Your task to perform on an android device: all mails in gmail Image 0: 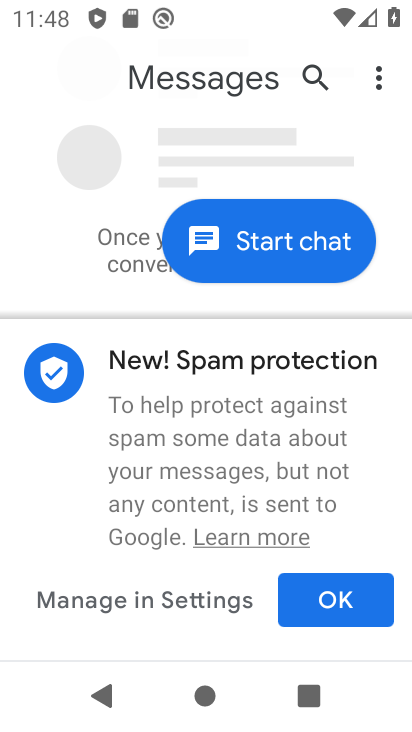
Step 0: press home button
Your task to perform on an android device: all mails in gmail Image 1: 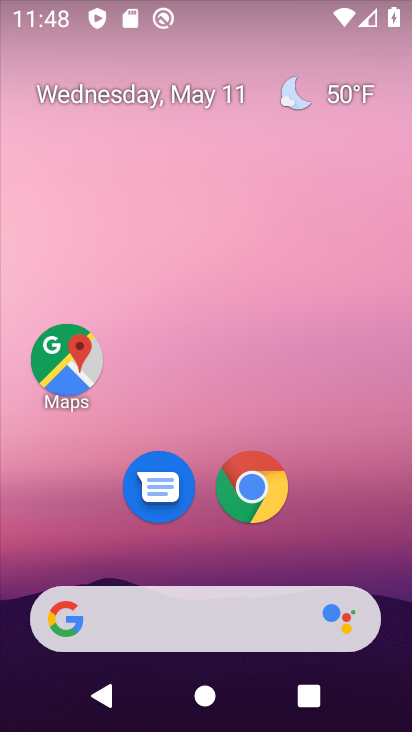
Step 1: drag from (218, 587) to (374, 125)
Your task to perform on an android device: all mails in gmail Image 2: 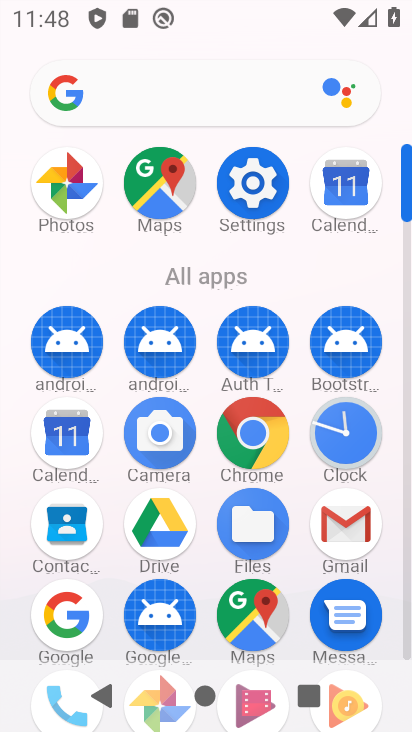
Step 2: click (335, 526)
Your task to perform on an android device: all mails in gmail Image 3: 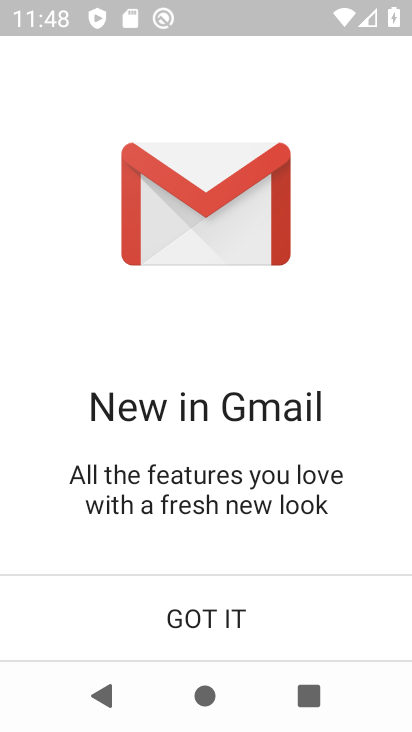
Step 3: click (245, 623)
Your task to perform on an android device: all mails in gmail Image 4: 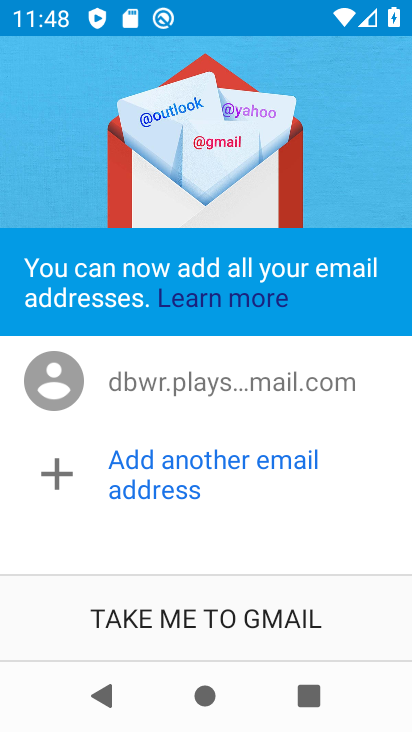
Step 4: click (245, 623)
Your task to perform on an android device: all mails in gmail Image 5: 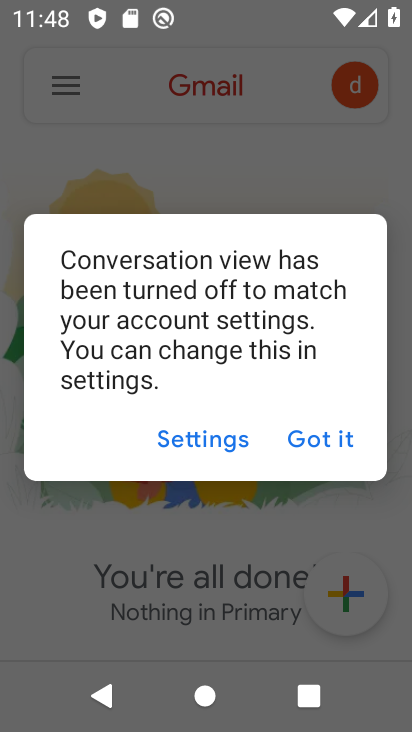
Step 5: click (304, 437)
Your task to perform on an android device: all mails in gmail Image 6: 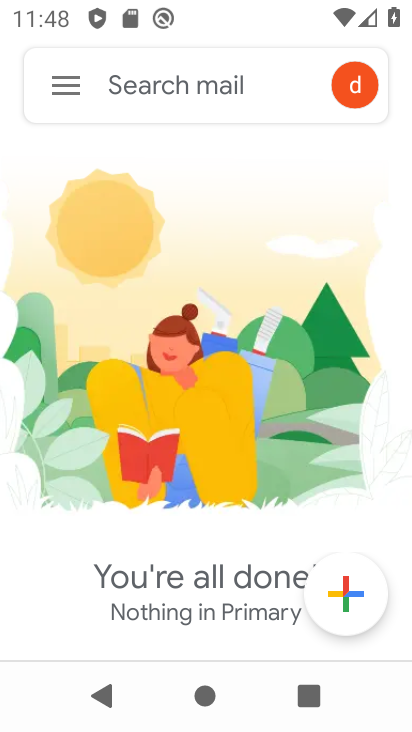
Step 6: click (73, 62)
Your task to perform on an android device: all mails in gmail Image 7: 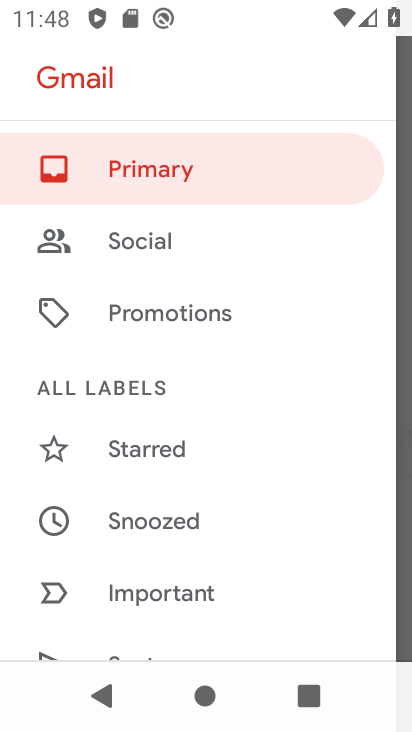
Step 7: drag from (145, 478) to (184, 131)
Your task to perform on an android device: all mails in gmail Image 8: 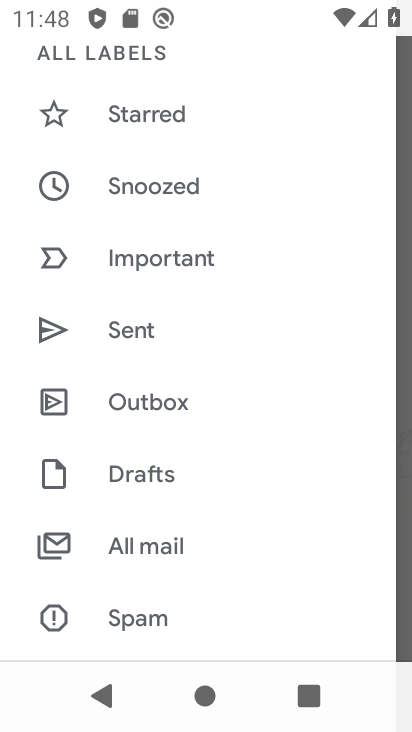
Step 8: click (141, 553)
Your task to perform on an android device: all mails in gmail Image 9: 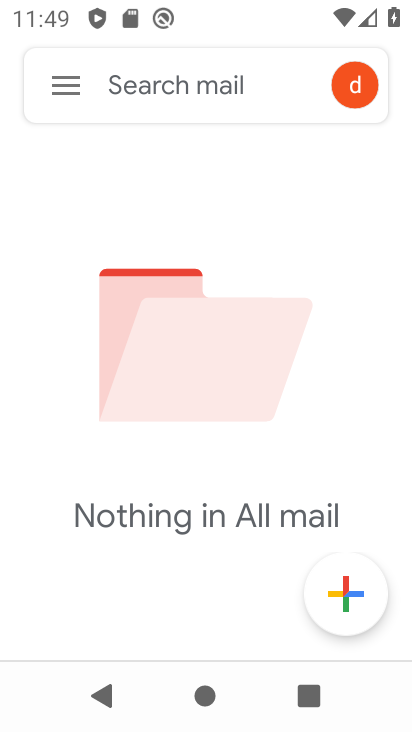
Step 9: task complete